Your task to perform on an android device: Open Yahoo.com Image 0: 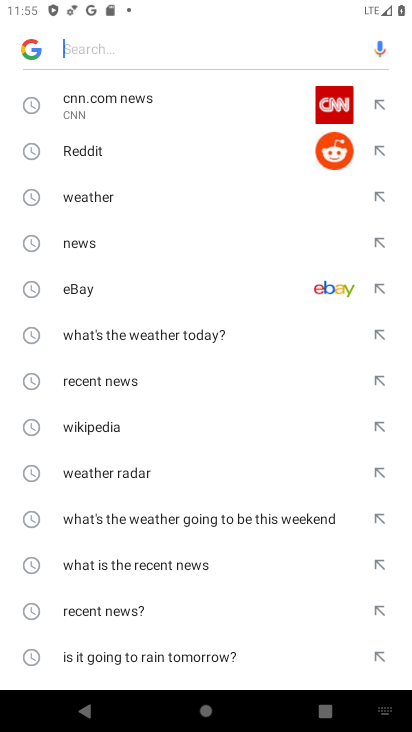
Step 0: type "yahoo"
Your task to perform on an android device: Open Yahoo.com Image 1: 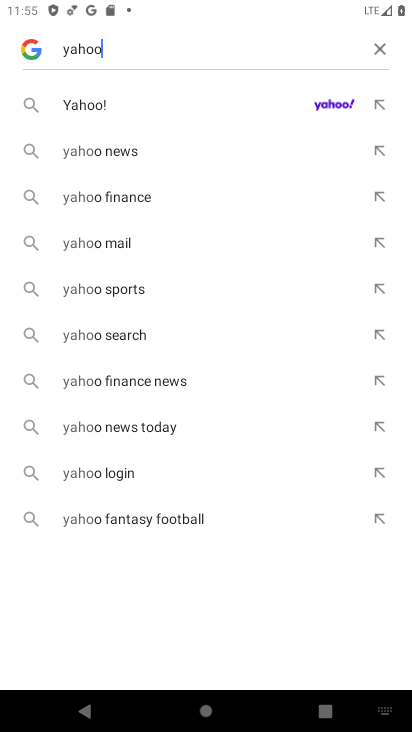
Step 1: click (68, 144)
Your task to perform on an android device: Open Yahoo.com Image 2: 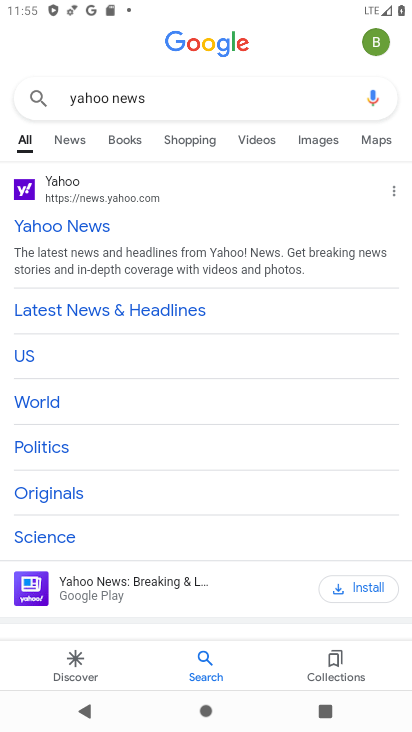
Step 2: click (86, 227)
Your task to perform on an android device: Open Yahoo.com Image 3: 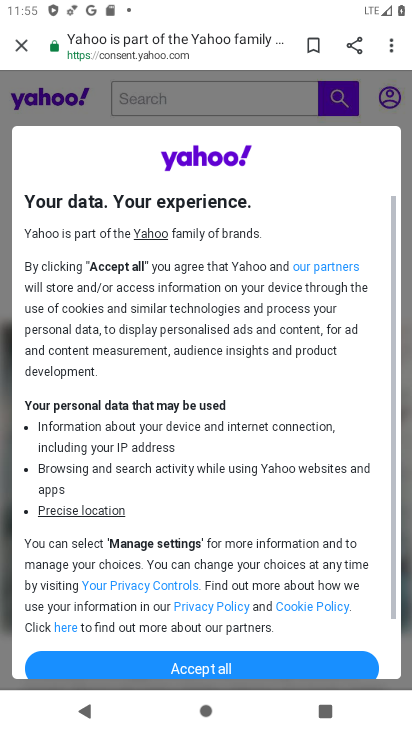
Step 3: task complete